Your task to perform on an android device: check android version Image 0: 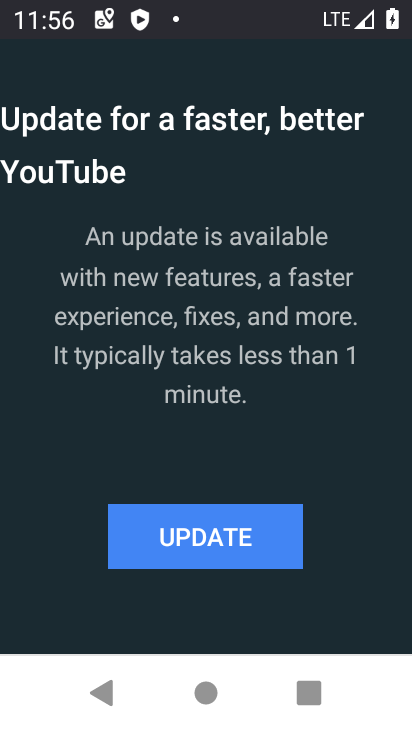
Step 0: press back button
Your task to perform on an android device: check android version Image 1: 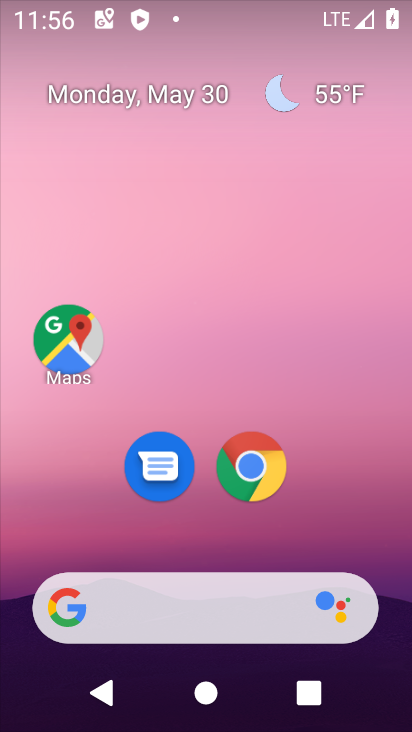
Step 1: drag from (354, 561) to (408, 78)
Your task to perform on an android device: check android version Image 2: 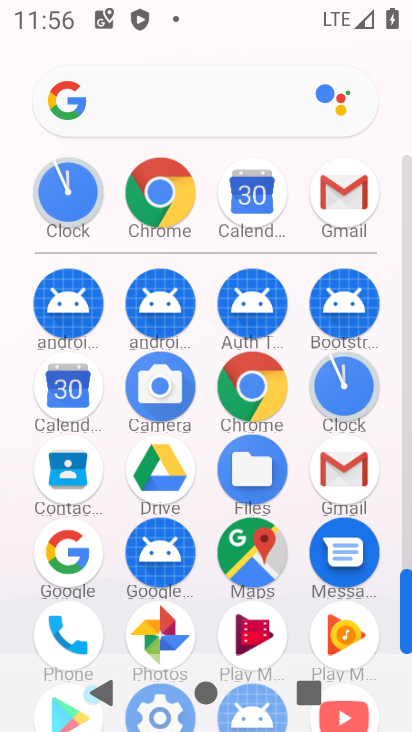
Step 2: drag from (205, 249) to (210, 30)
Your task to perform on an android device: check android version Image 3: 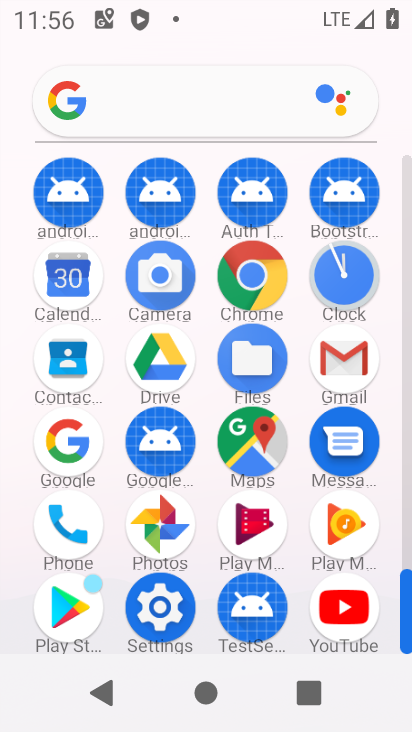
Step 3: click (159, 614)
Your task to perform on an android device: check android version Image 4: 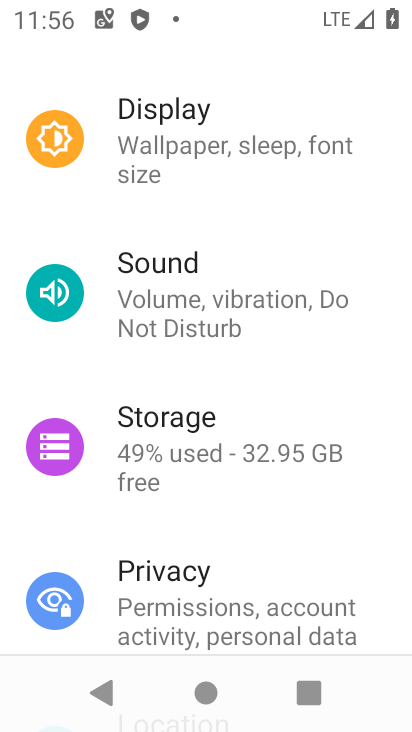
Step 4: drag from (196, 601) to (214, 1)
Your task to perform on an android device: check android version Image 5: 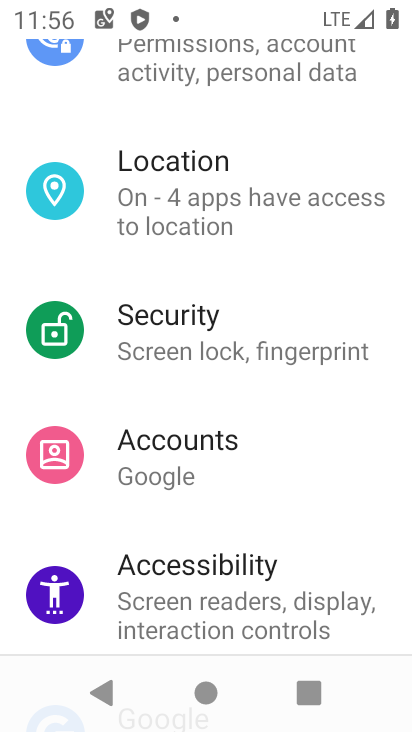
Step 5: drag from (230, 598) to (230, 6)
Your task to perform on an android device: check android version Image 6: 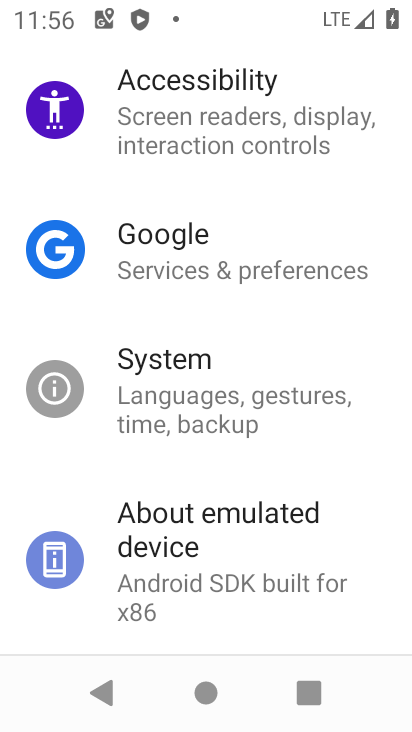
Step 6: drag from (229, 668) to (263, 167)
Your task to perform on an android device: check android version Image 7: 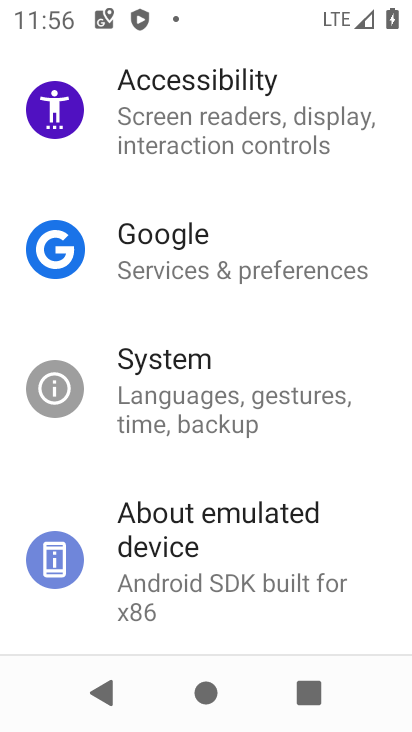
Step 7: drag from (278, 580) to (264, 124)
Your task to perform on an android device: check android version Image 8: 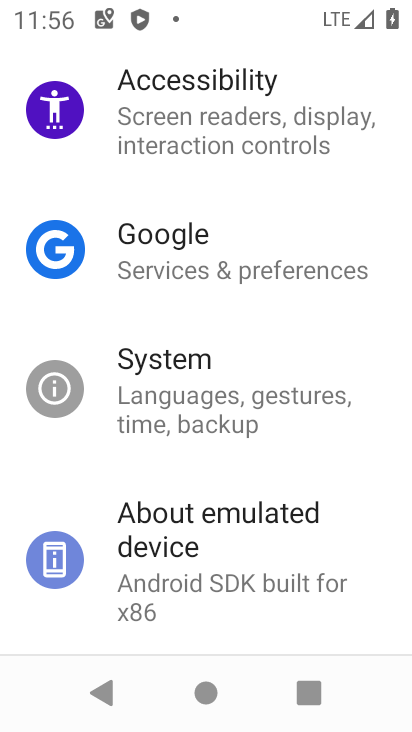
Step 8: click (218, 582)
Your task to perform on an android device: check android version Image 9: 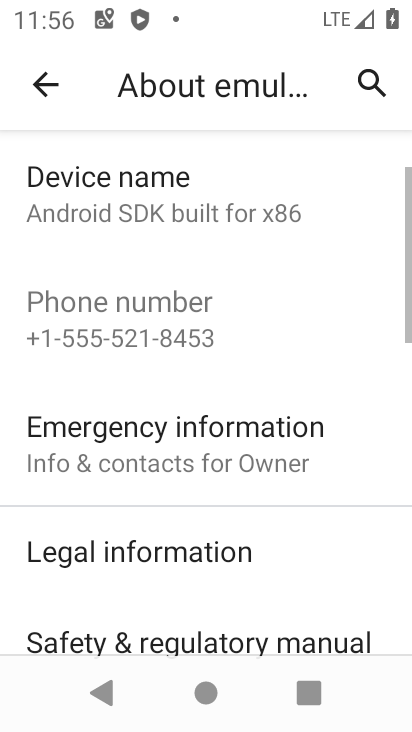
Step 9: drag from (265, 605) to (279, 169)
Your task to perform on an android device: check android version Image 10: 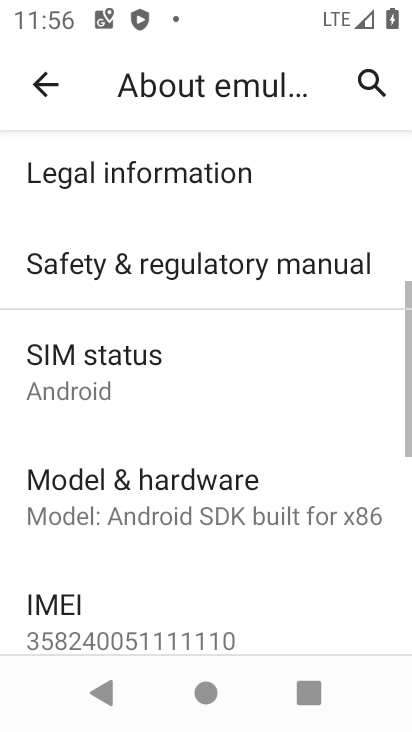
Step 10: drag from (236, 579) to (253, 182)
Your task to perform on an android device: check android version Image 11: 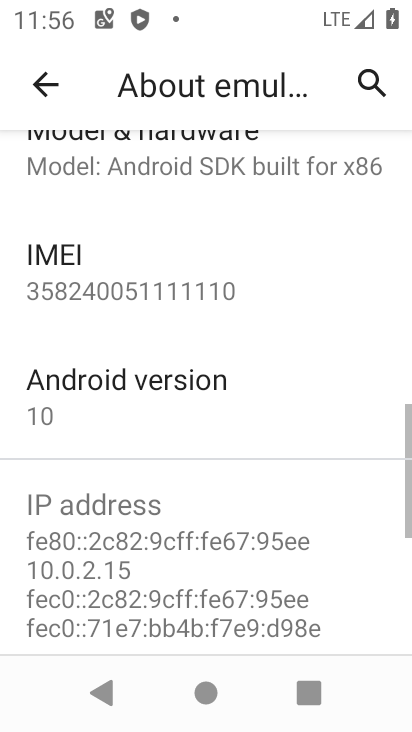
Step 11: click (195, 411)
Your task to perform on an android device: check android version Image 12: 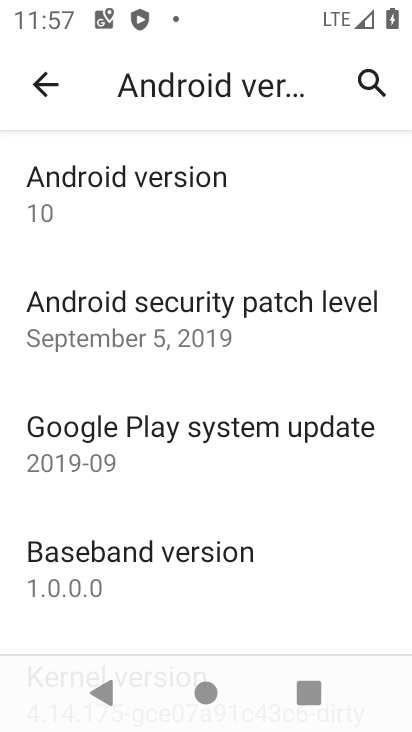
Step 12: task complete